Your task to perform on an android device: See recent photos Image 0: 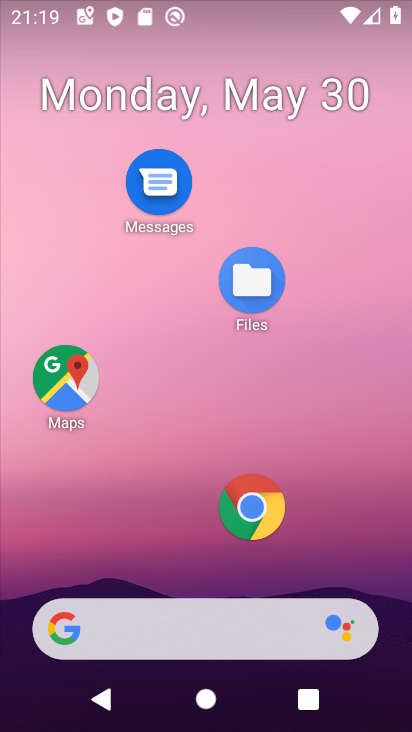
Step 0: drag from (183, 578) to (254, 1)
Your task to perform on an android device: See recent photos Image 1: 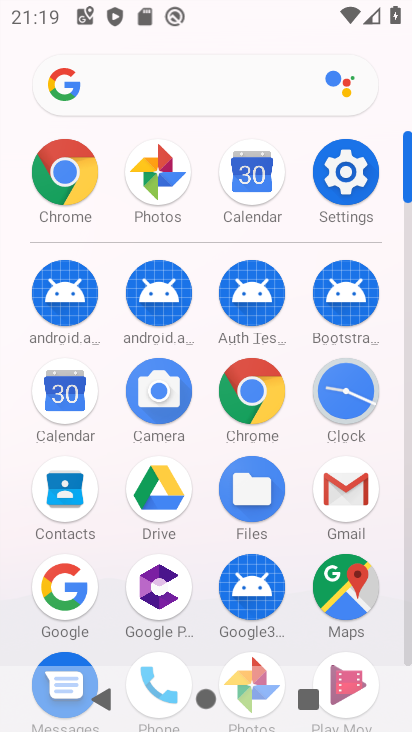
Step 1: drag from (207, 488) to (200, 59)
Your task to perform on an android device: See recent photos Image 2: 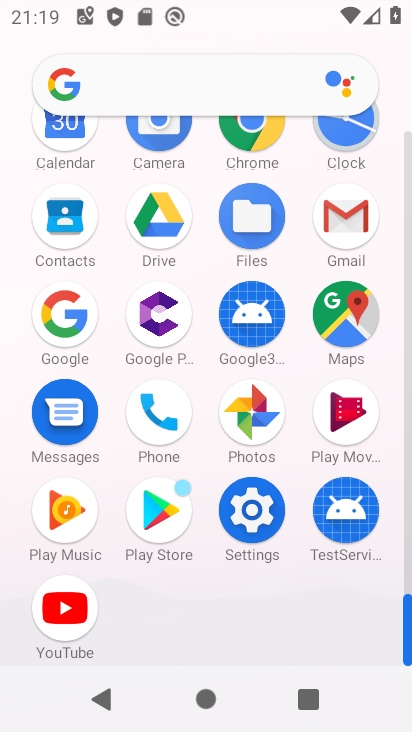
Step 2: click (247, 418)
Your task to perform on an android device: See recent photos Image 3: 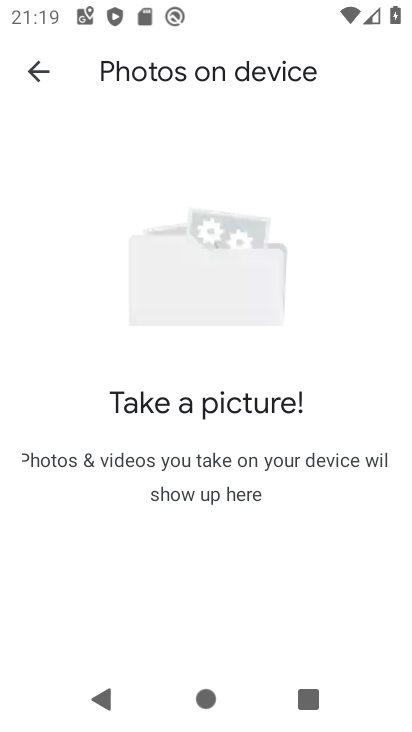
Step 3: drag from (233, 498) to (227, 332)
Your task to perform on an android device: See recent photos Image 4: 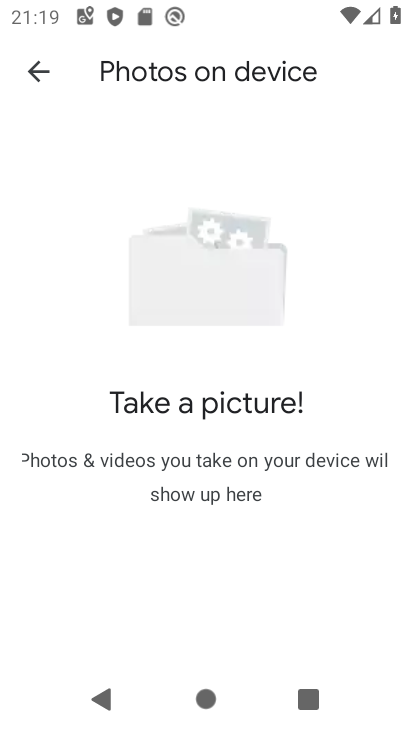
Step 4: click (37, 69)
Your task to perform on an android device: See recent photos Image 5: 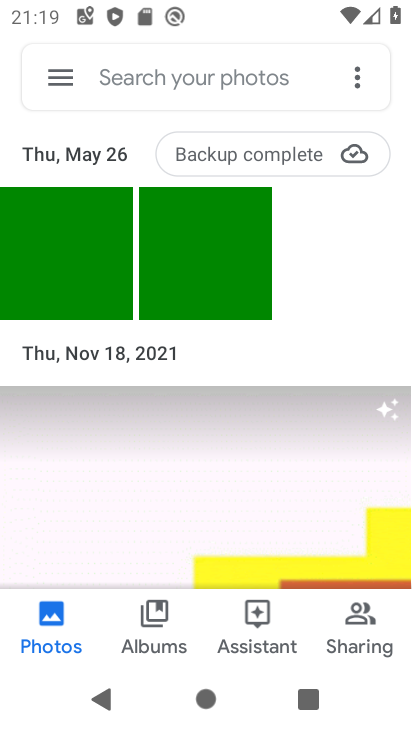
Step 5: task complete